Your task to perform on an android device: When is my next appointment? Image 0: 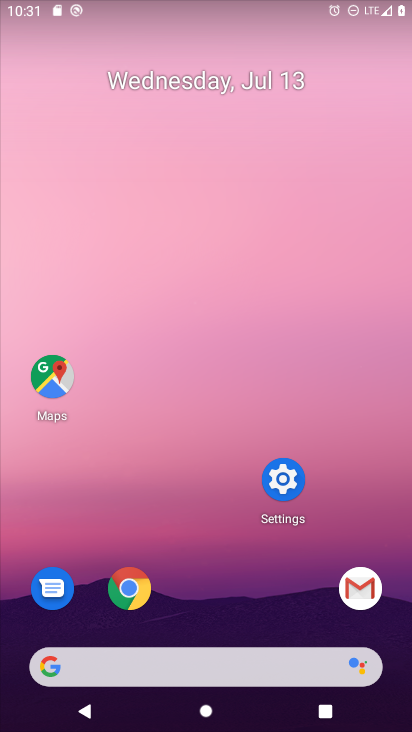
Step 0: press home button
Your task to perform on an android device: When is my next appointment? Image 1: 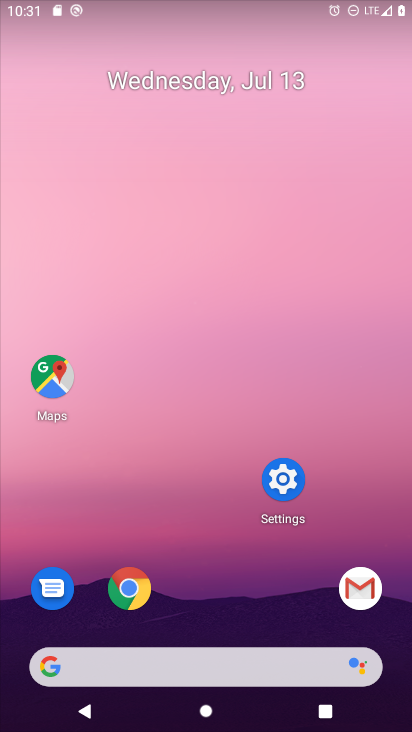
Step 1: drag from (286, 660) to (326, 157)
Your task to perform on an android device: When is my next appointment? Image 2: 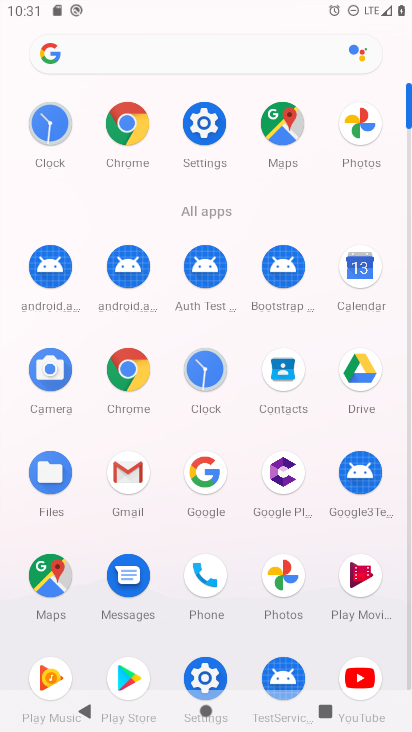
Step 2: click (356, 286)
Your task to perform on an android device: When is my next appointment? Image 3: 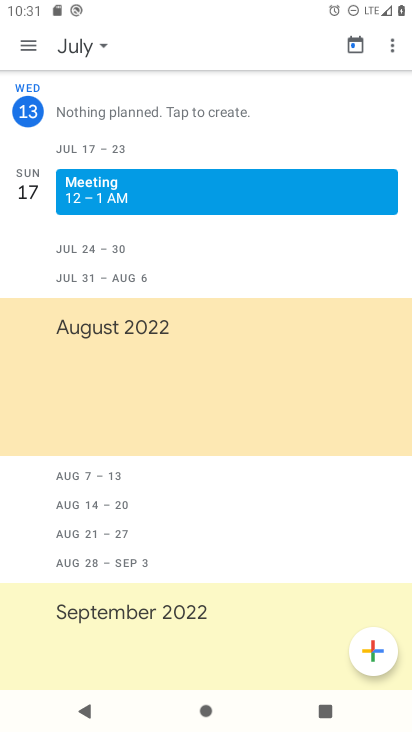
Step 3: click (23, 51)
Your task to perform on an android device: When is my next appointment? Image 4: 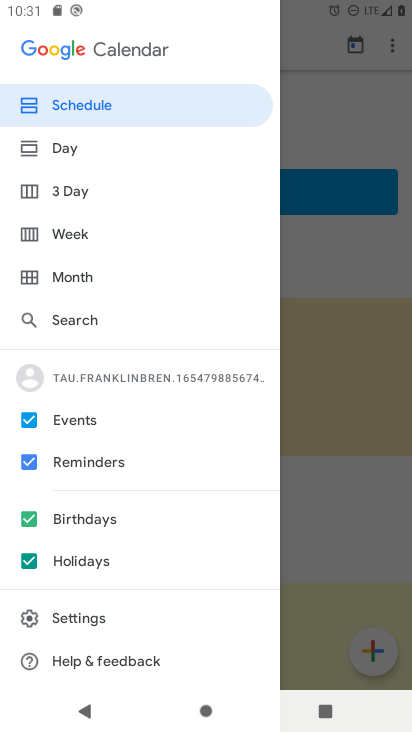
Step 4: click (90, 276)
Your task to perform on an android device: When is my next appointment? Image 5: 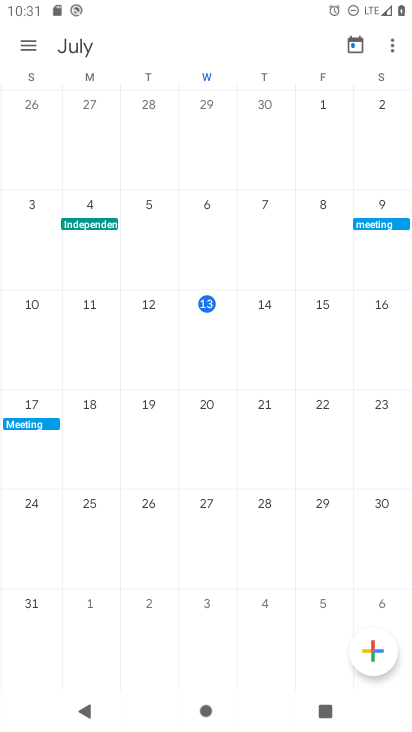
Step 5: click (208, 312)
Your task to perform on an android device: When is my next appointment? Image 6: 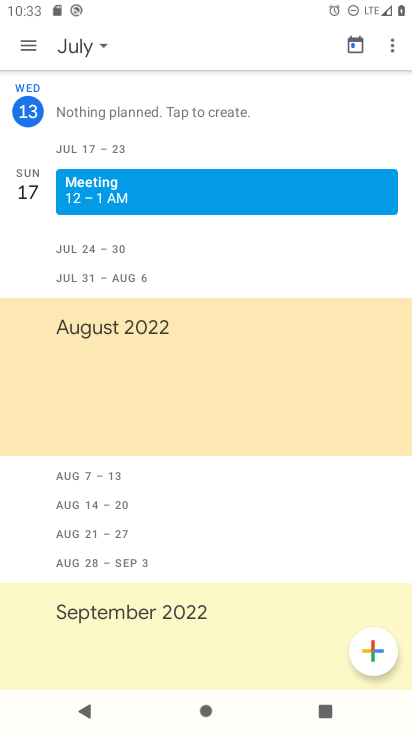
Step 6: task complete